Your task to perform on an android device: Open notification settings Image 0: 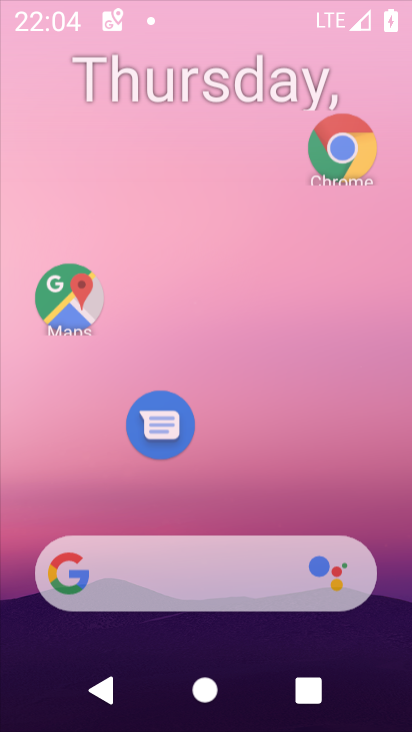
Step 0: click (254, 123)
Your task to perform on an android device: Open notification settings Image 1: 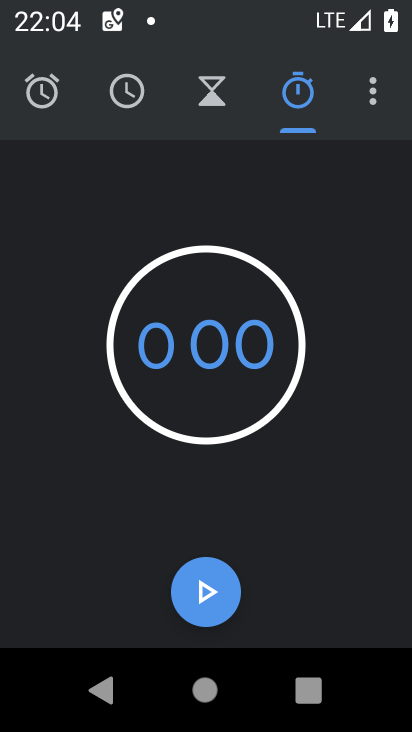
Step 1: press home button
Your task to perform on an android device: Open notification settings Image 2: 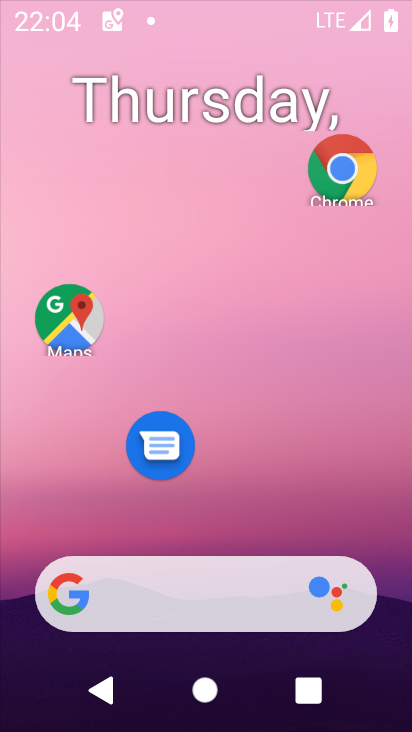
Step 2: drag from (256, 601) to (267, 66)
Your task to perform on an android device: Open notification settings Image 3: 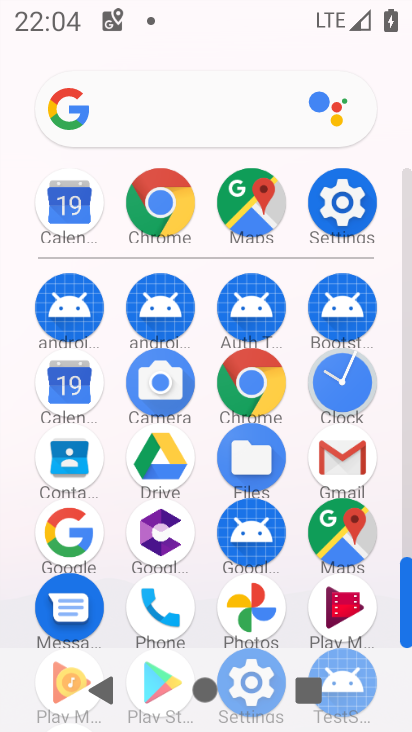
Step 3: click (339, 187)
Your task to perform on an android device: Open notification settings Image 4: 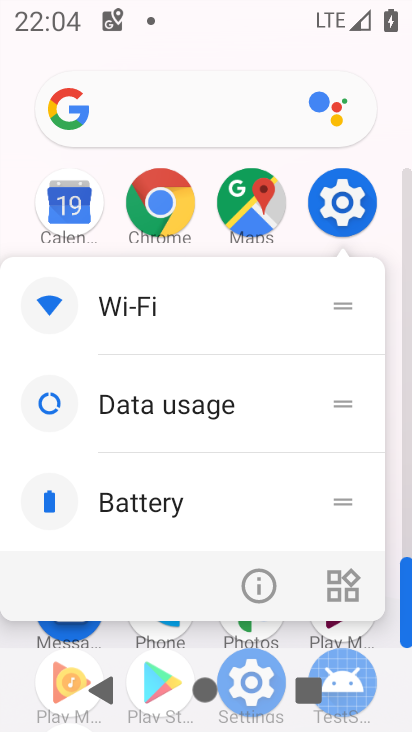
Step 4: click (255, 573)
Your task to perform on an android device: Open notification settings Image 5: 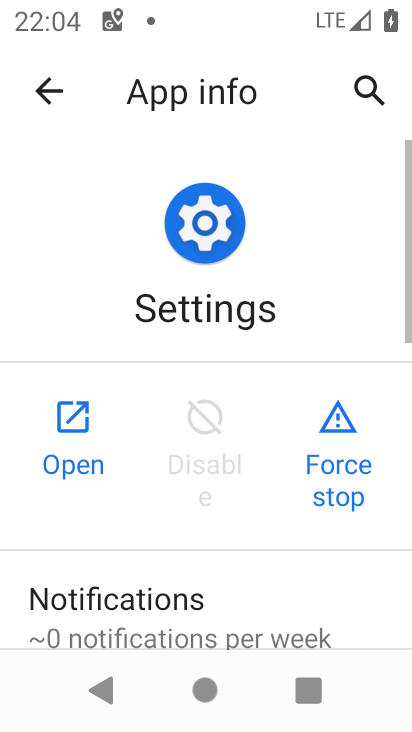
Step 5: drag from (192, 586) to (224, 120)
Your task to perform on an android device: Open notification settings Image 6: 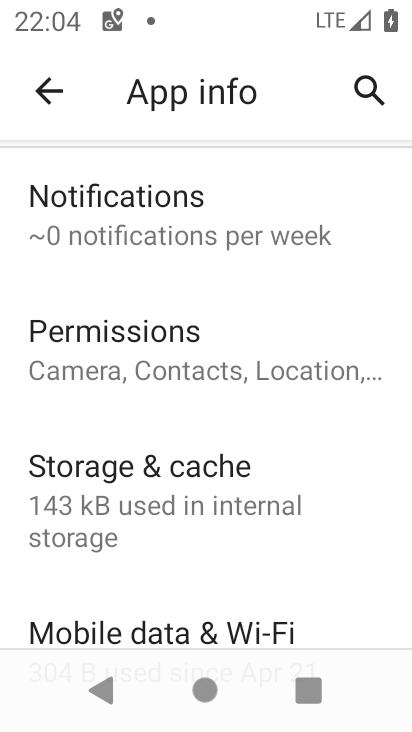
Step 6: drag from (158, 147) to (302, 643)
Your task to perform on an android device: Open notification settings Image 7: 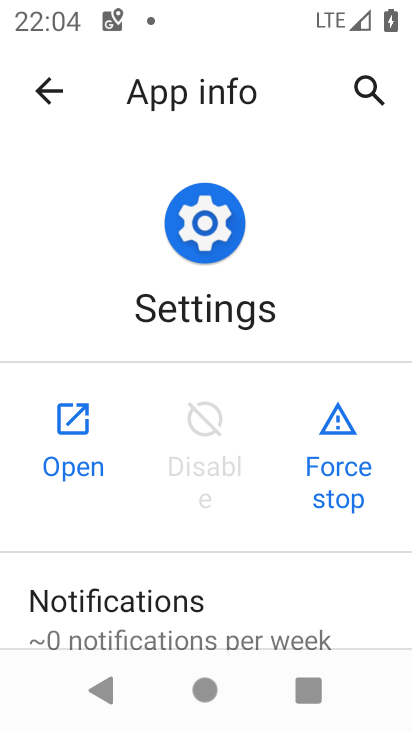
Step 7: click (89, 432)
Your task to perform on an android device: Open notification settings Image 8: 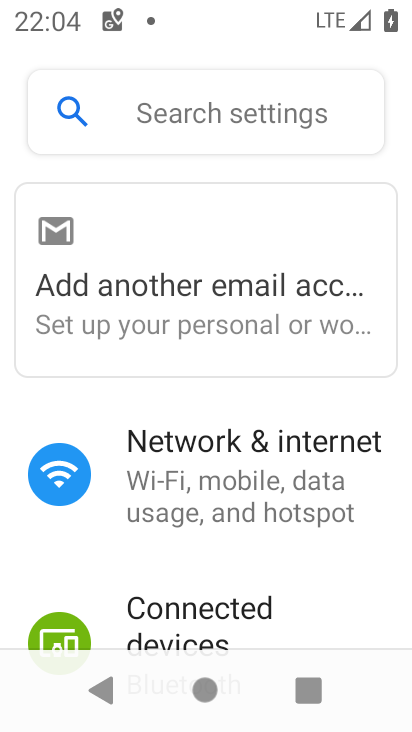
Step 8: drag from (200, 609) to (267, 253)
Your task to perform on an android device: Open notification settings Image 9: 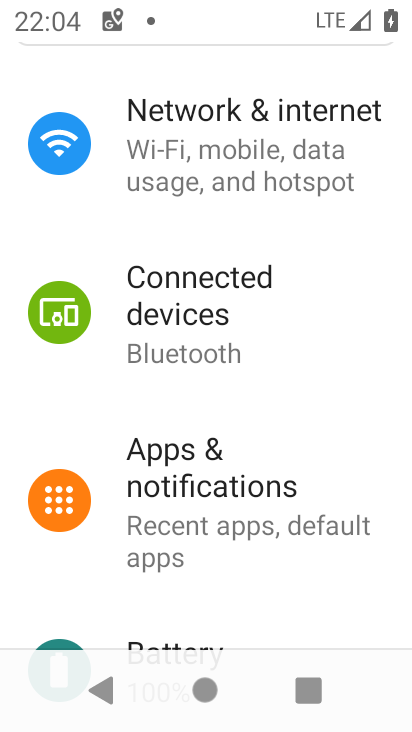
Step 9: drag from (245, 563) to (310, 266)
Your task to perform on an android device: Open notification settings Image 10: 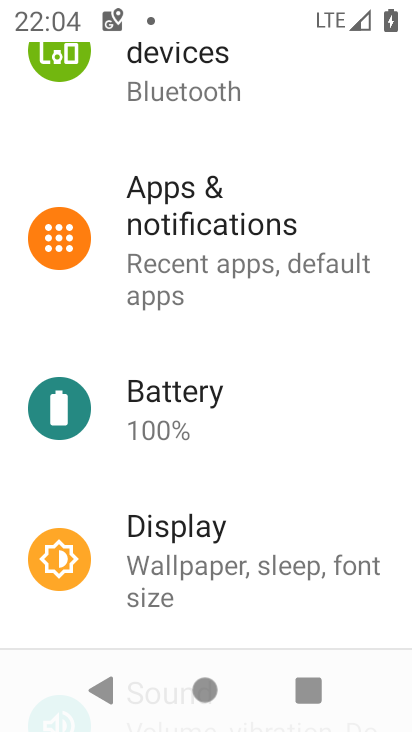
Step 10: drag from (243, 557) to (315, 195)
Your task to perform on an android device: Open notification settings Image 11: 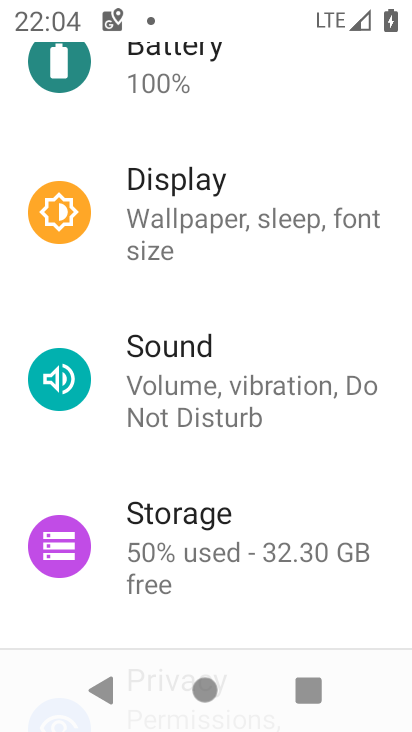
Step 11: drag from (318, 171) to (361, 721)
Your task to perform on an android device: Open notification settings Image 12: 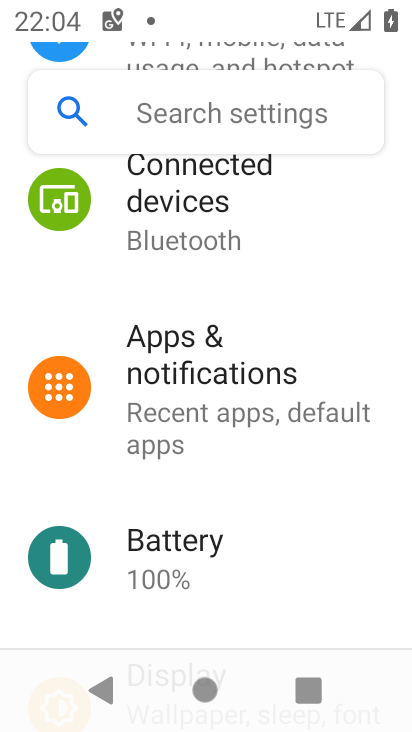
Step 12: click (161, 334)
Your task to perform on an android device: Open notification settings Image 13: 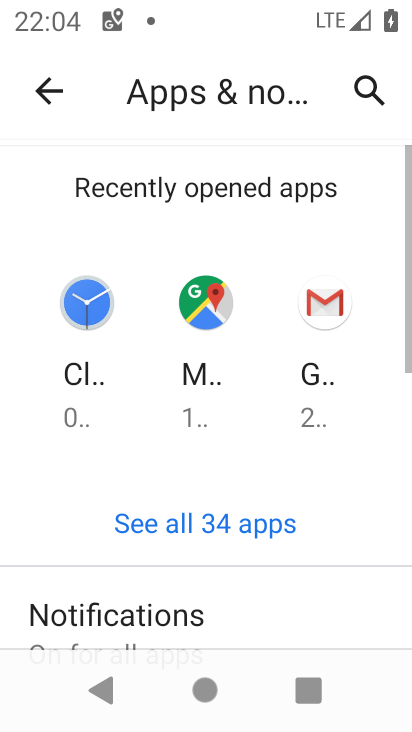
Step 13: drag from (196, 595) to (257, 173)
Your task to perform on an android device: Open notification settings Image 14: 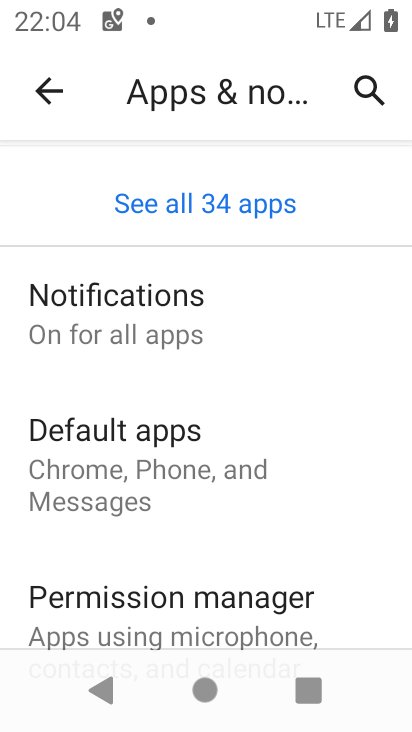
Step 14: click (172, 310)
Your task to perform on an android device: Open notification settings Image 15: 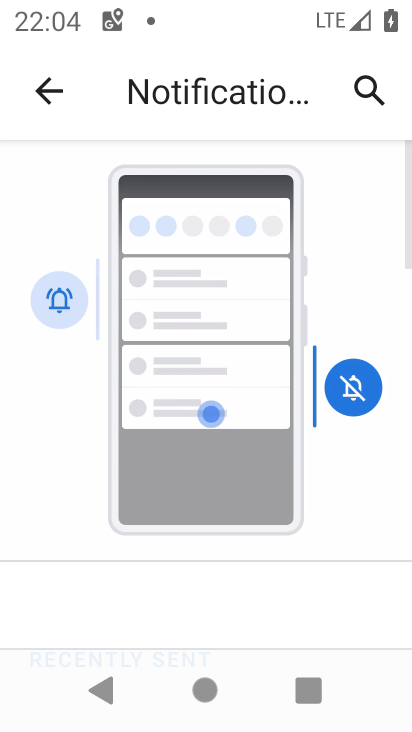
Step 15: task complete